Your task to perform on an android device: Show the shopping cart on walmart.com. Image 0: 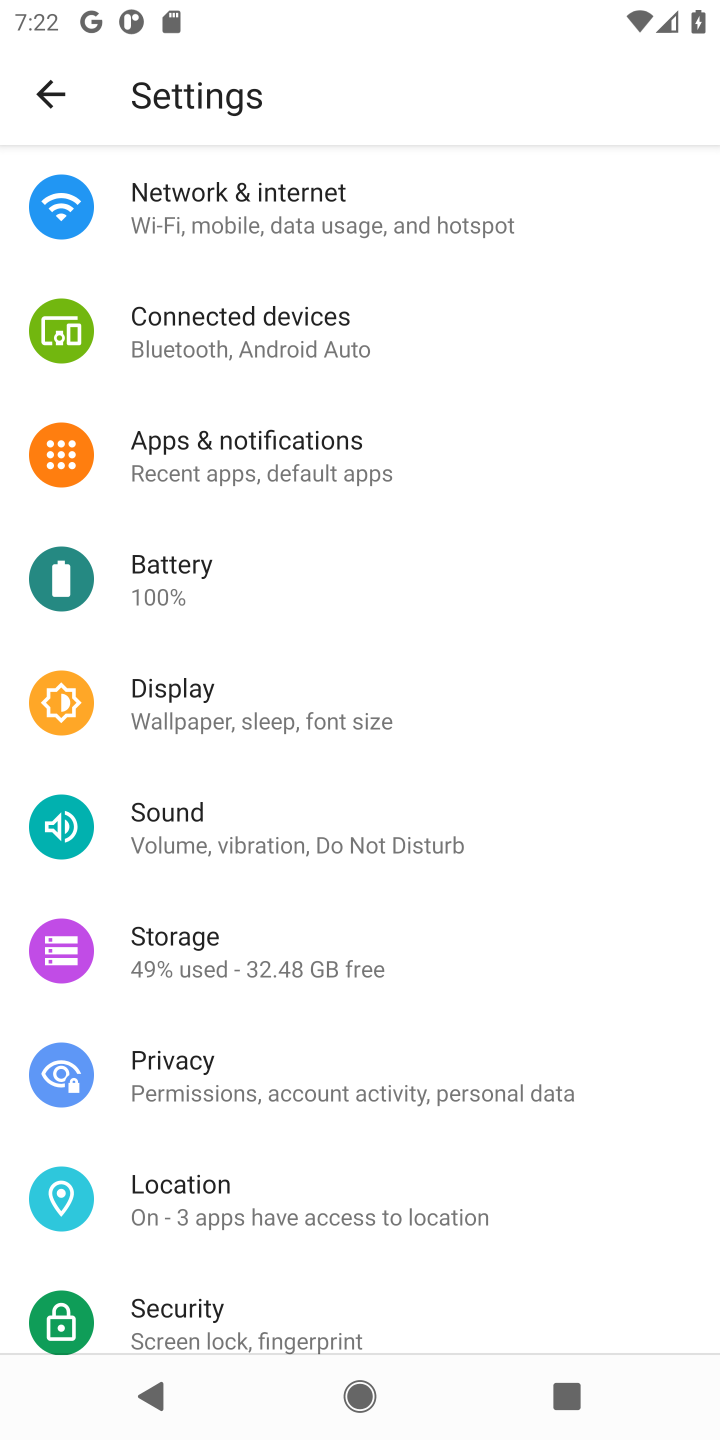
Step 0: press home button
Your task to perform on an android device: Show the shopping cart on walmart.com. Image 1: 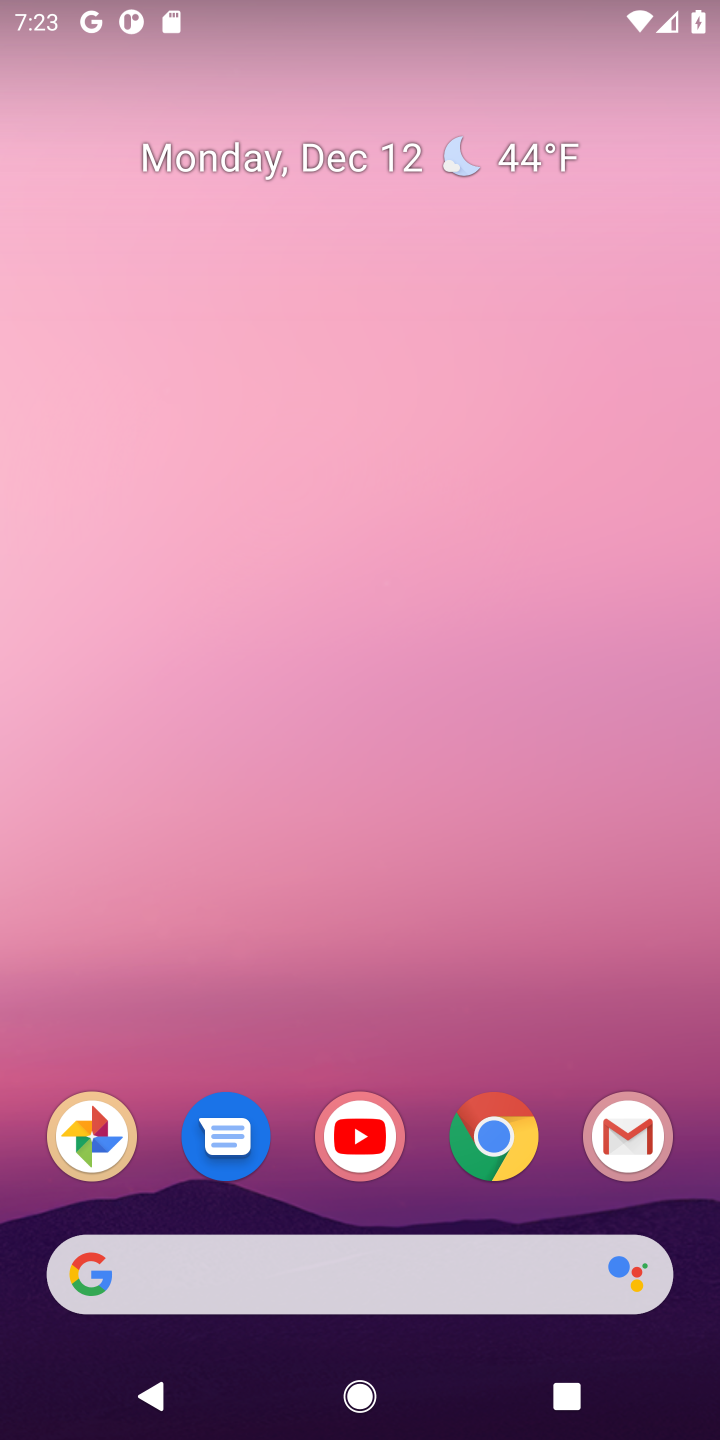
Step 1: click (503, 1125)
Your task to perform on an android device: Show the shopping cart on walmart.com. Image 2: 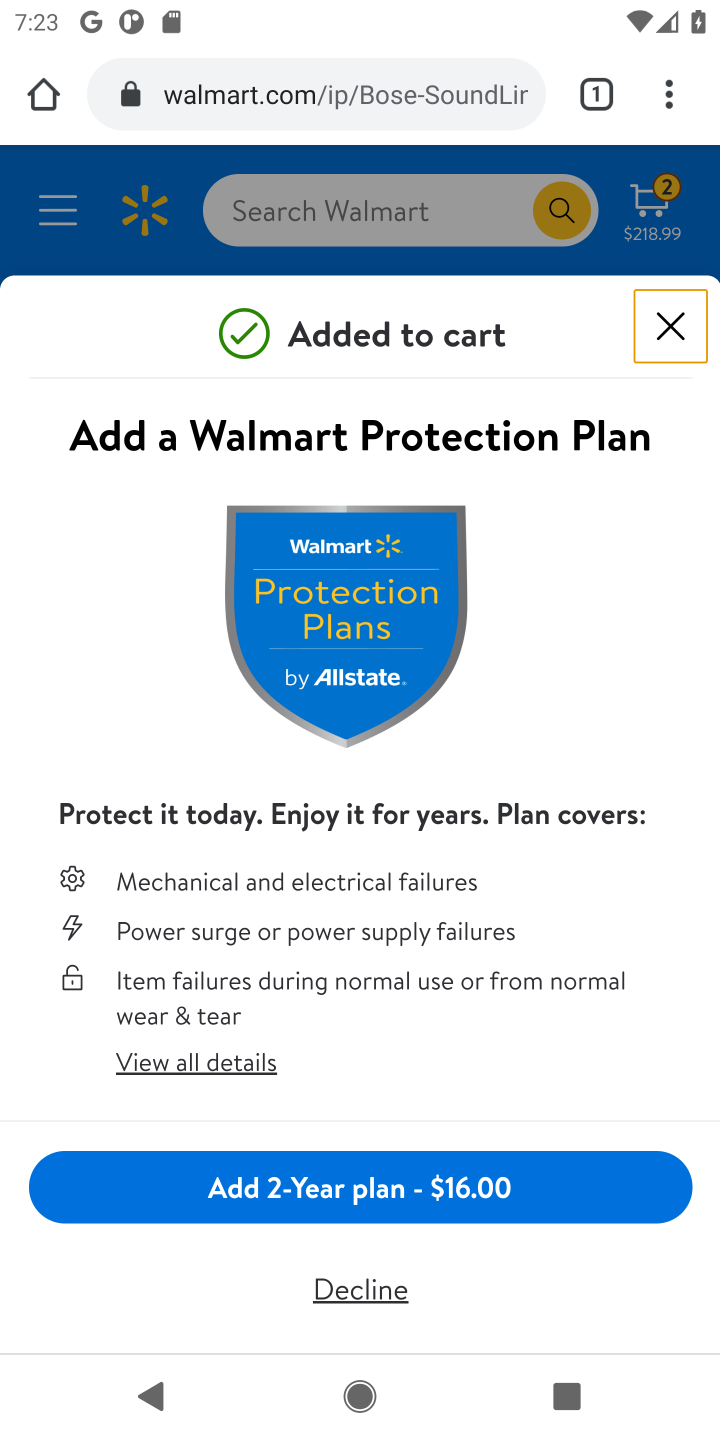
Step 2: click (660, 326)
Your task to perform on an android device: Show the shopping cart on walmart.com. Image 3: 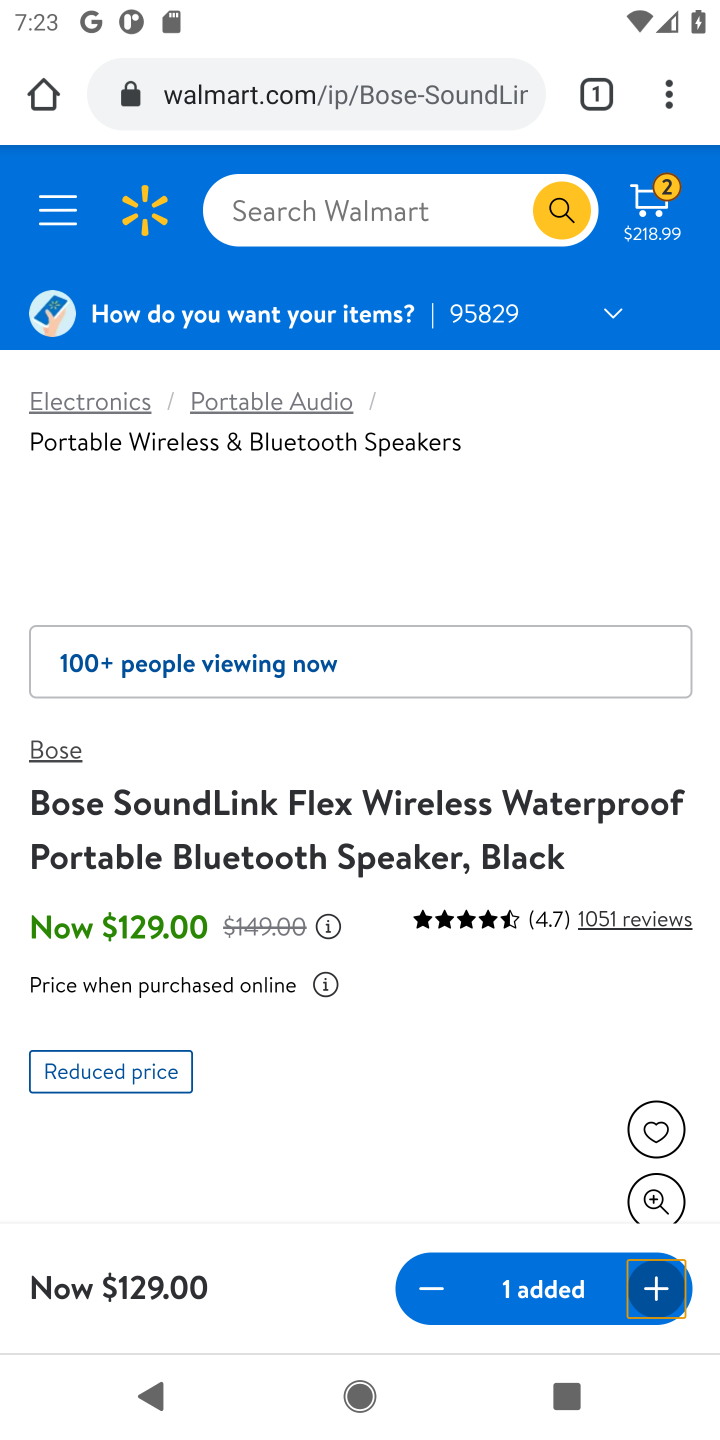
Step 3: click (657, 196)
Your task to perform on an android device: Show the shopping cart on walmart.com. Image 4: 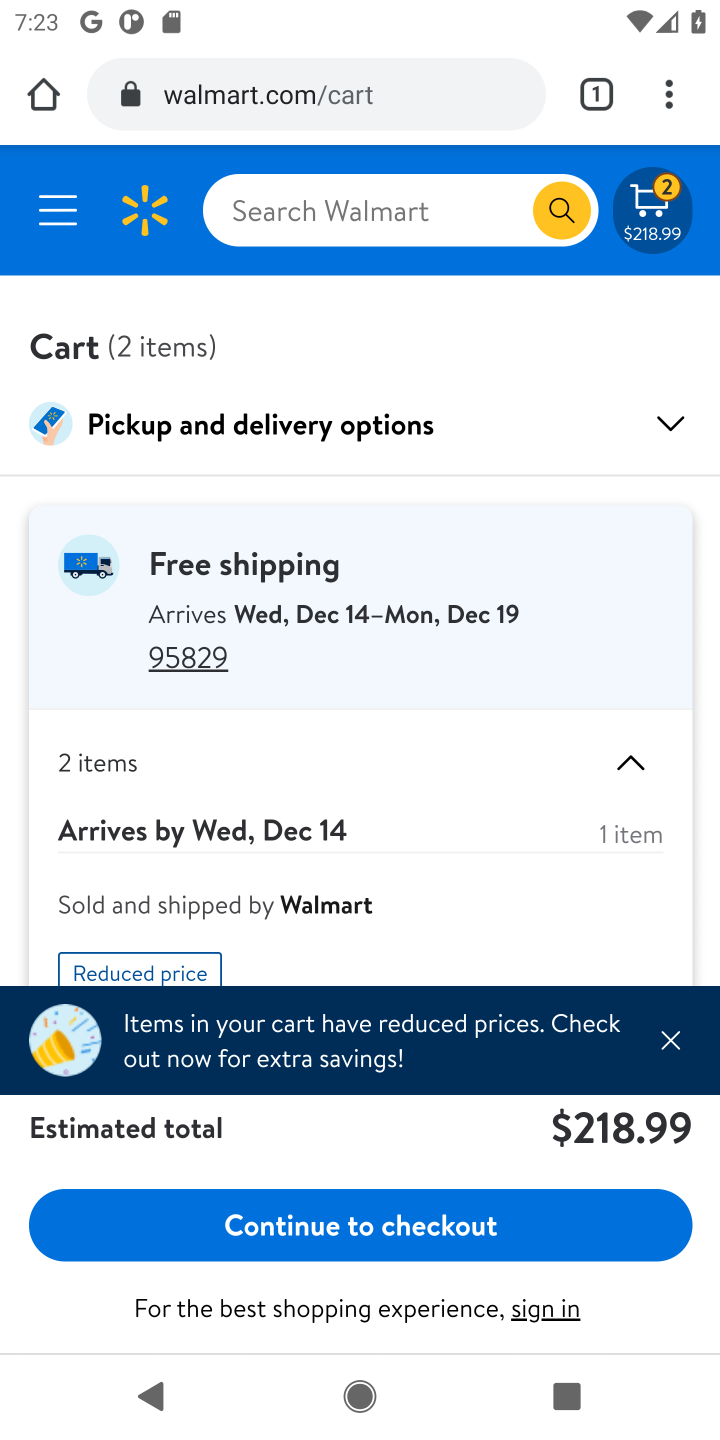
Step 4: task complete